Your task to perform on an android device: Look up the best rated gaming chair on Best Buy Image 0: 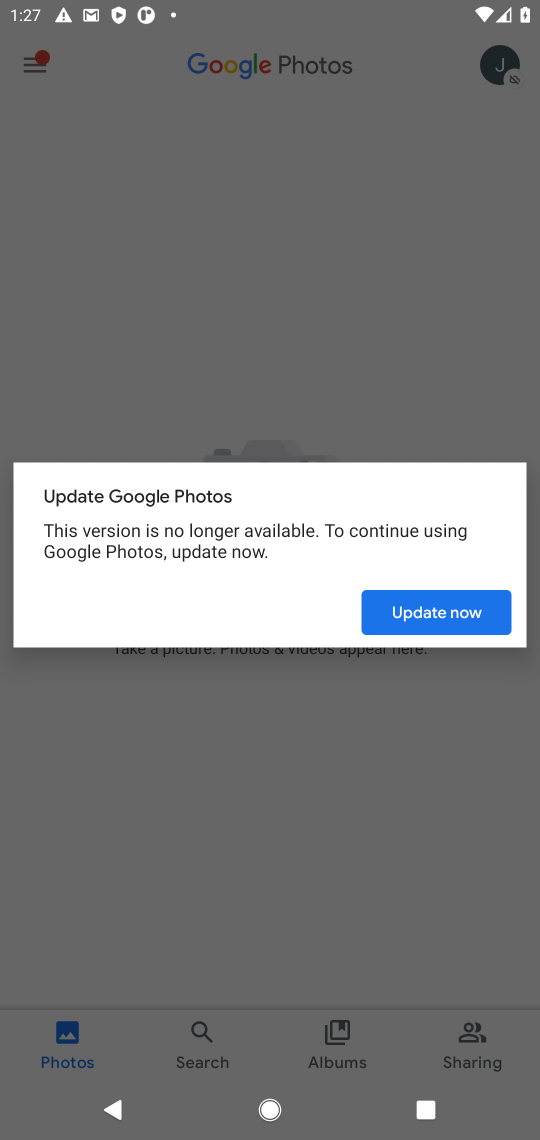
Step 0: press home button
Your task to perform on an android device: Look up the best rated gaming chair on Best Buy Image 1: 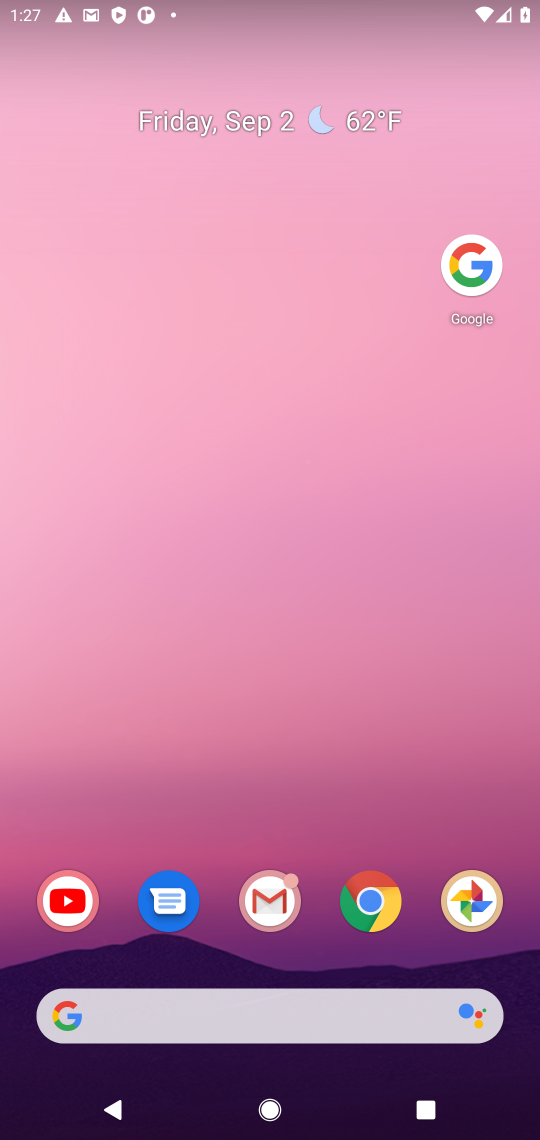
Step 1: click (469, 263)
Your task to perform on an android device: Look up the best rated gaming chair on Best Buy Image 2: 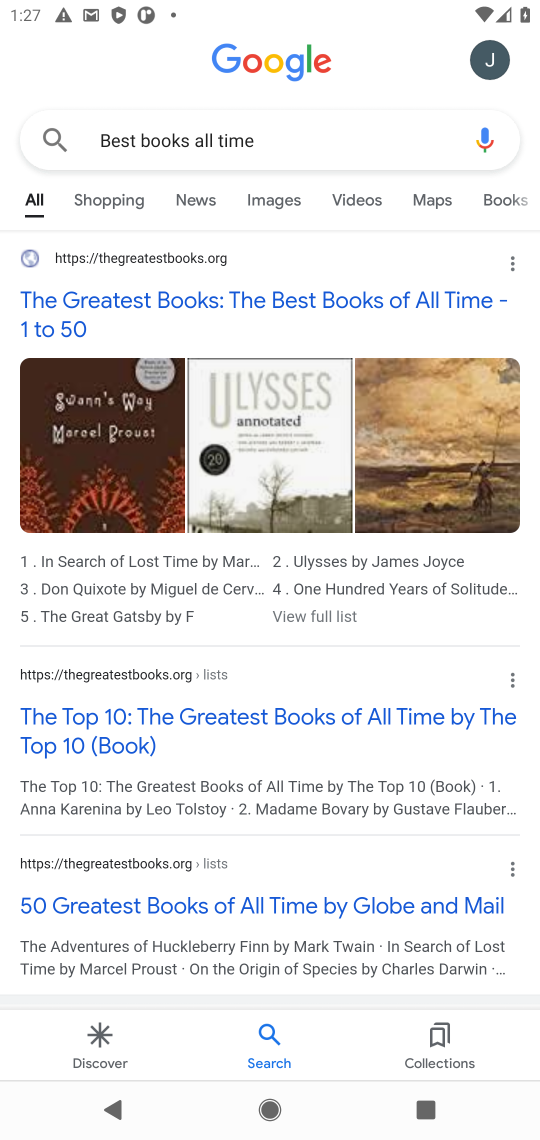
Step 2: click (329, 146)
Your task to perform on an android device: Look up the best rated gaming chair on Best Buy Image 3: 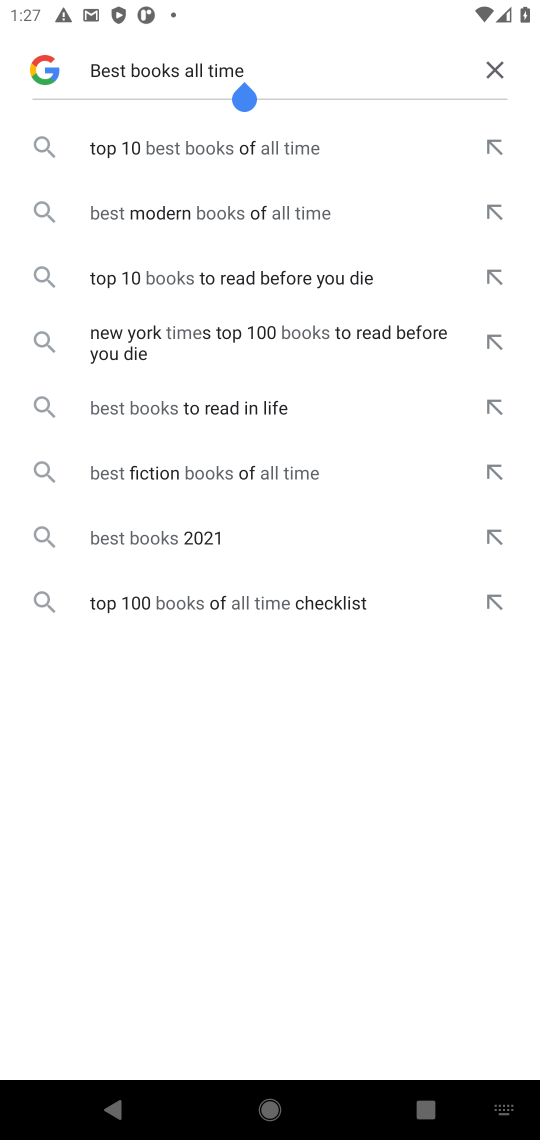
Step 3: click (492, 77)
Your task to perform on an android device: Look up the best rated gaming chair on Best Buy Image 4: 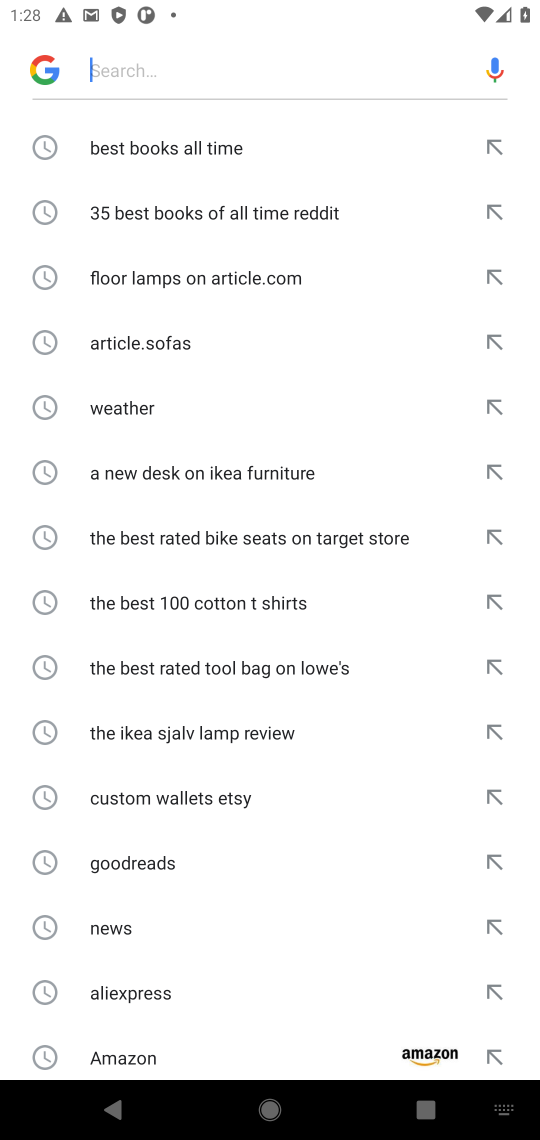
Step 4: click (234, 60)
Your task to perform on an android device: Look up the best rated gaming chair on Best Buy Image 5: 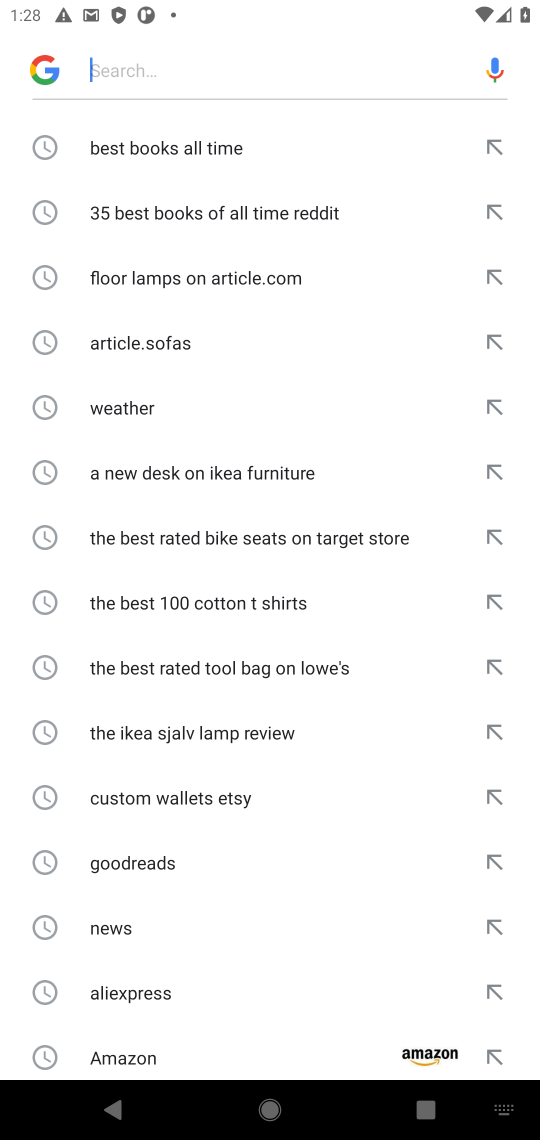
Step 5: type "Look up the best rated gaming chair on Best Buy "
Your task to perform on an android device: Look up the best rated gaming chair on Best Buy Image 6: 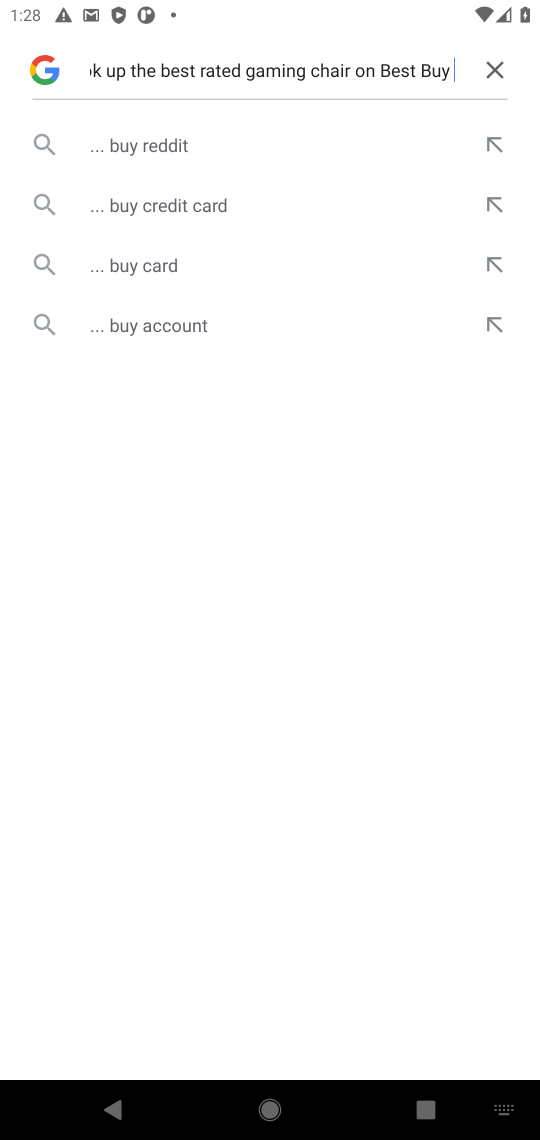
Step 6: click (164, 140)
Your task to perform on an android device: Look up the best rated gaming chair on Best Buy Image 7: 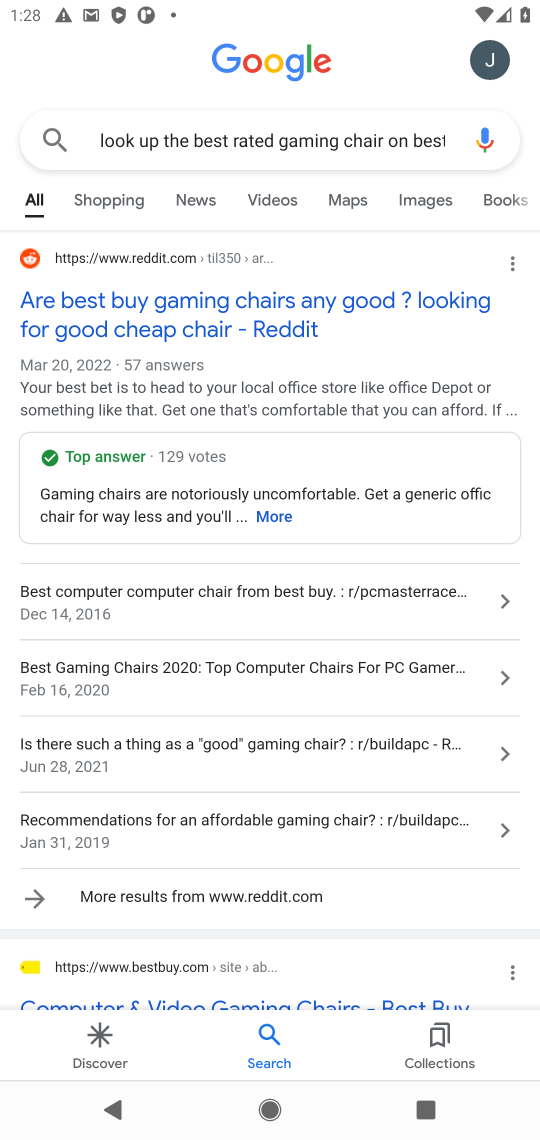
Step 7: click (170, 329)
Your task to perform on an android device: Look up the best rated gaming chair on Best Buy Image 8: 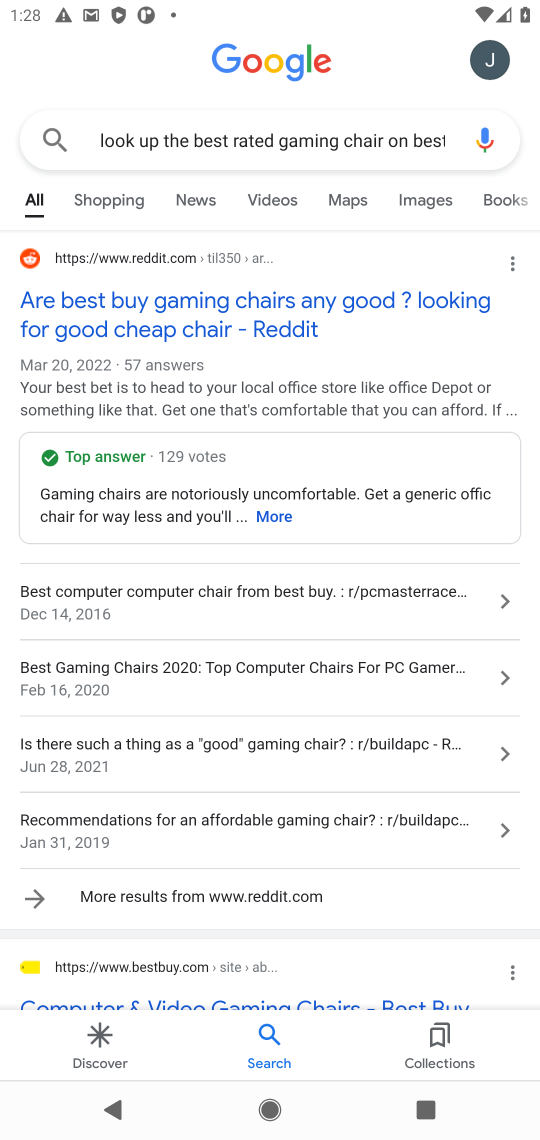
Step 8: click (130, 311)
Your task to perform on an android device: Look up the best rated gaming chair on Best Buy Image 9: 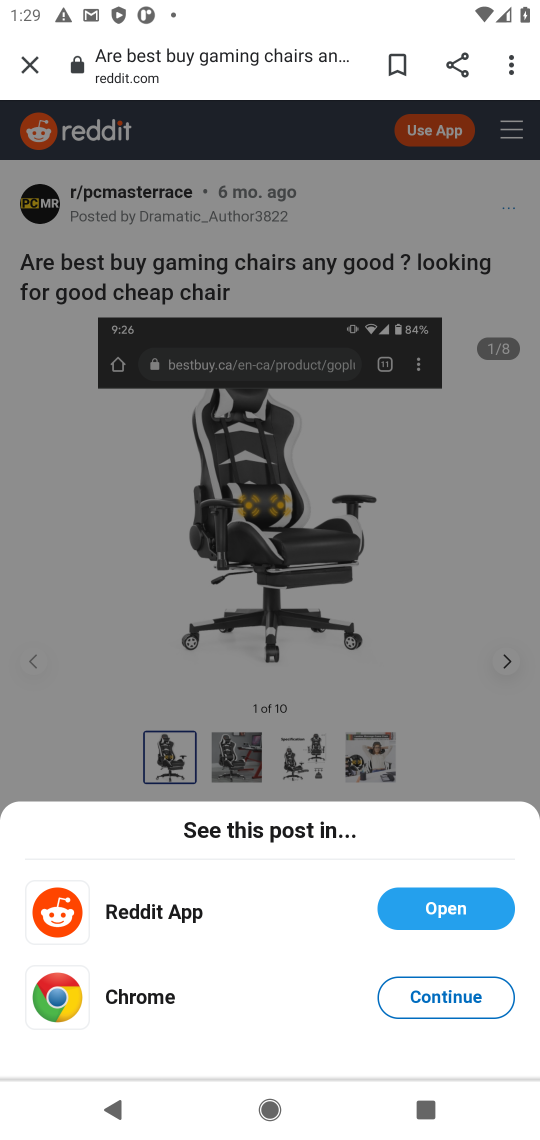
Step 9: click (422, 905)
Your task to perform on an android device: Look up the best rated gaming chair on Best Buy Image 10: 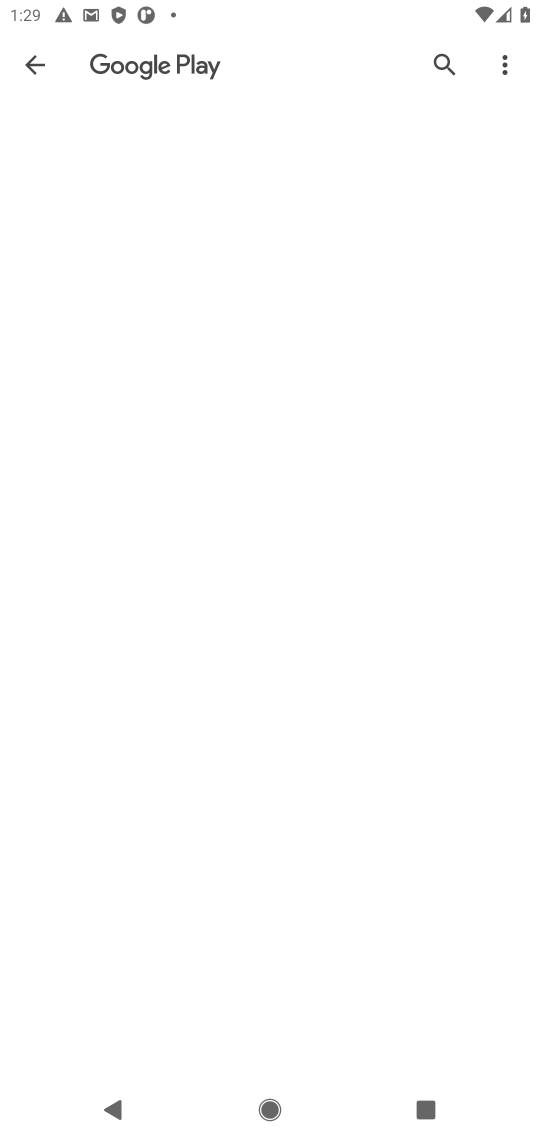
Step 10: press back button
Your task to perform on an android device: Look up the best rated gaming chair on Best Buy Image 11: 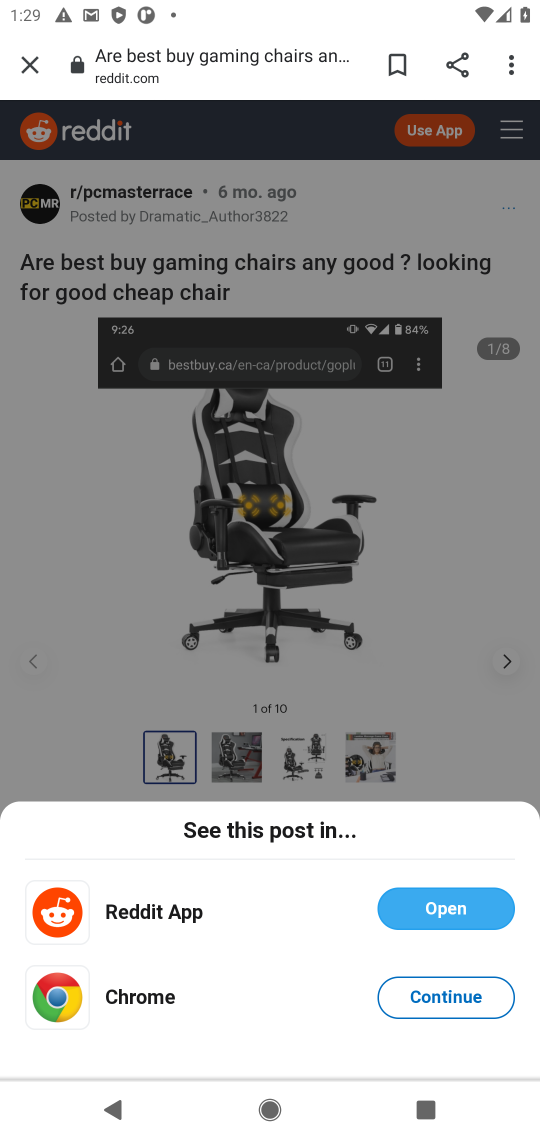
Step 11: press back button
Your task to perform on an android device: Look up the best rated gaming chair on Best Buy Image 12: 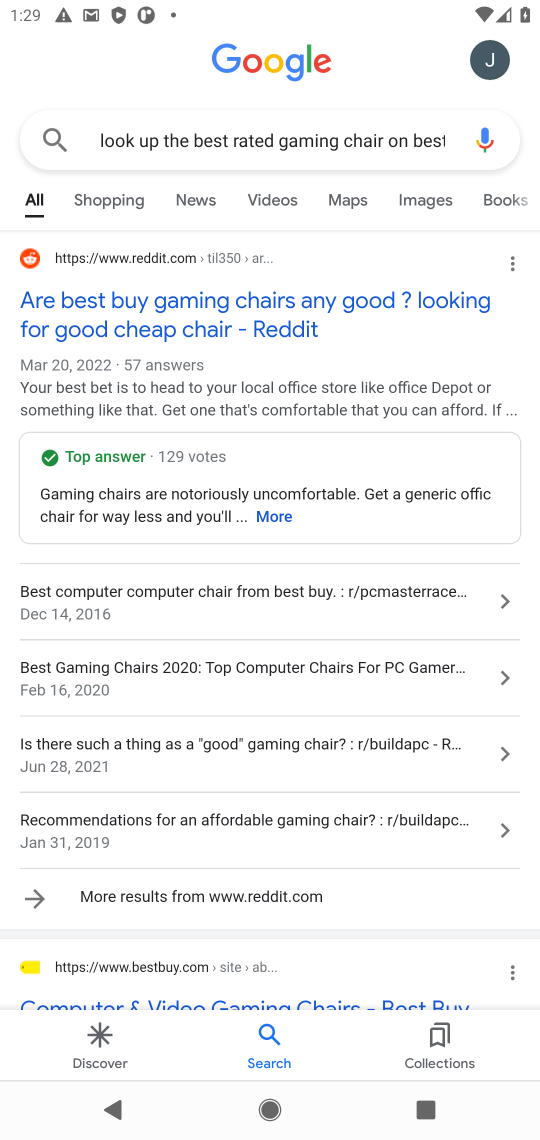
Step 12: drag from (239, 952) to (296, 346)
Your task to perform on an android device: Look up the best rated gaming chair on Best Buy Image 13: 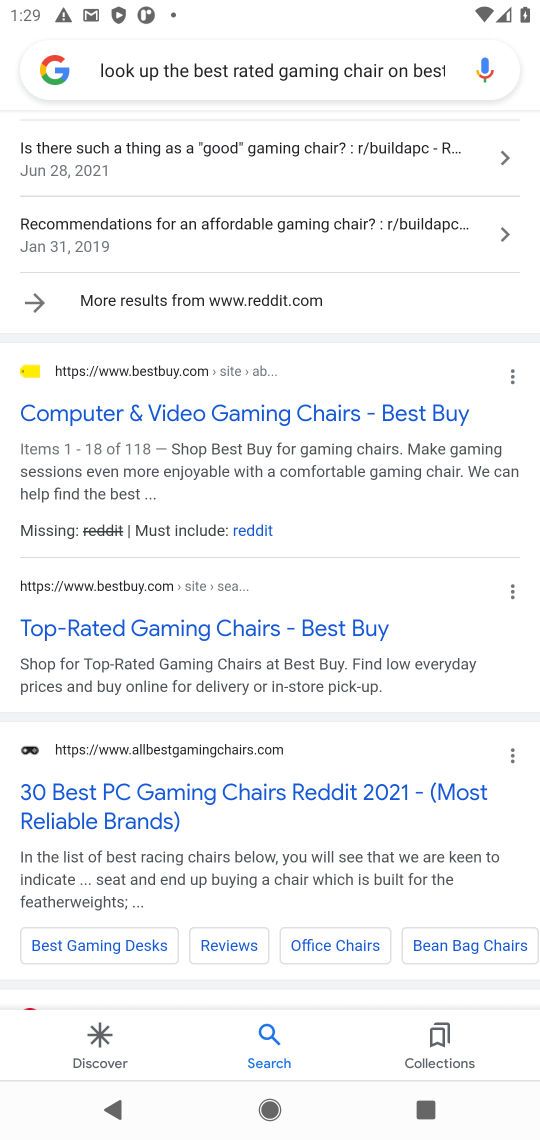
Step 13: click (227, 419)
Your task to perform on an android device: Look up the best rated gaming chair on Best Buy Image 14: 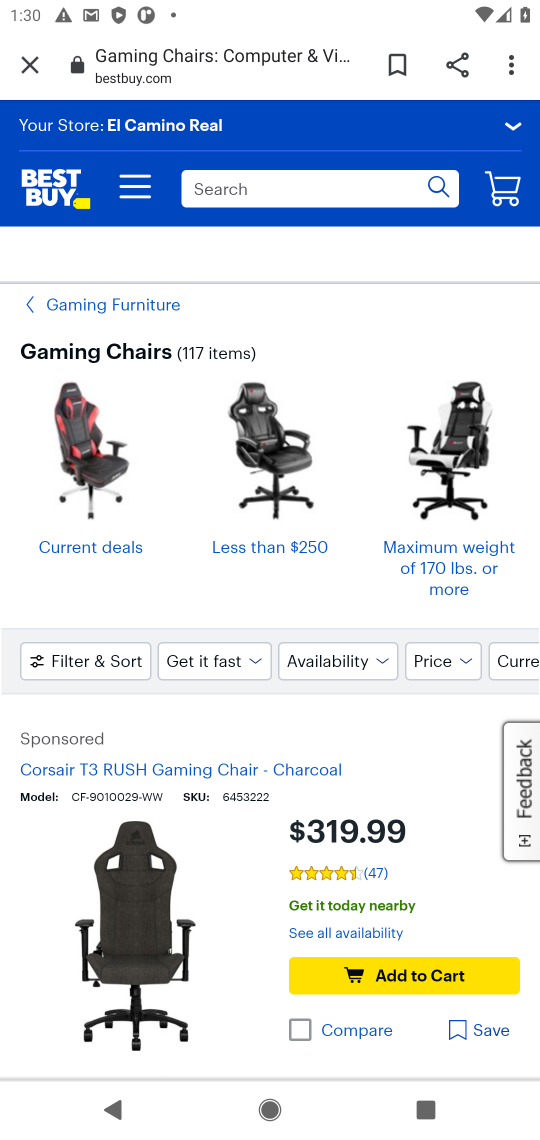
Step 14: task complete